Your task to perform on an android device: toggle wifi Image 0: 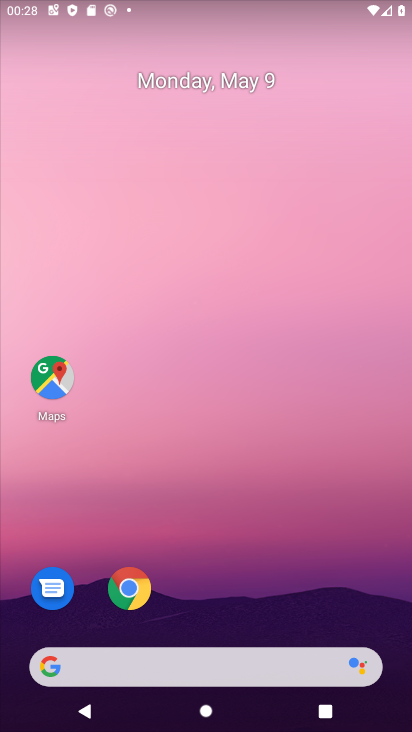
Step 0: drag from (233, 574) to (128, 27)
Your task to perform on an android device: toggle wifi Image 1: 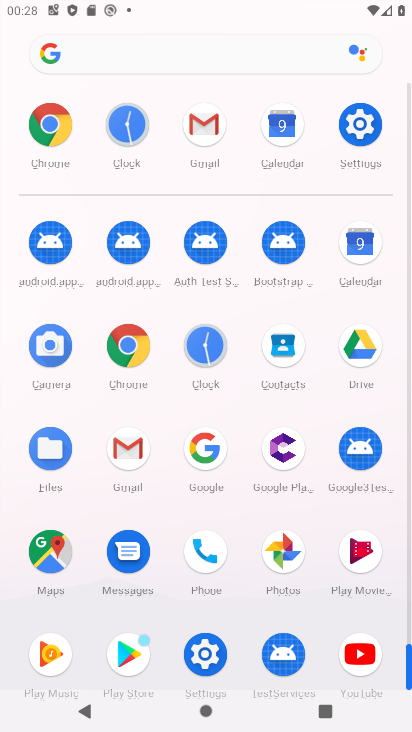
Step 1: click (358, 131)
Your task to perform on an android device: toggle wifi Image 2: 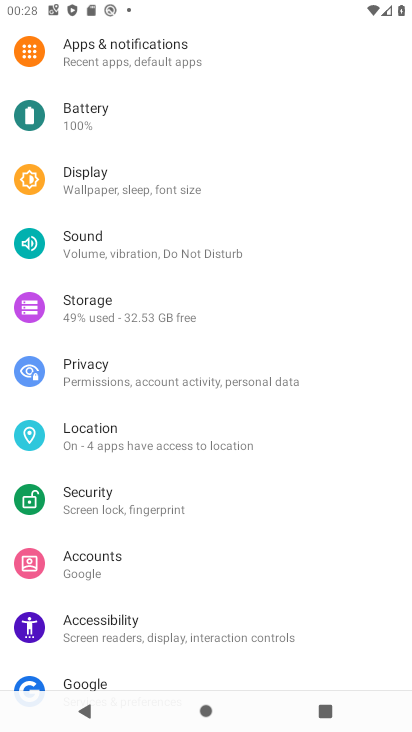
Step 2: drag from (196, 197) to (200, 700)
Your task to perform on an android device: toggle wifi Image 3: 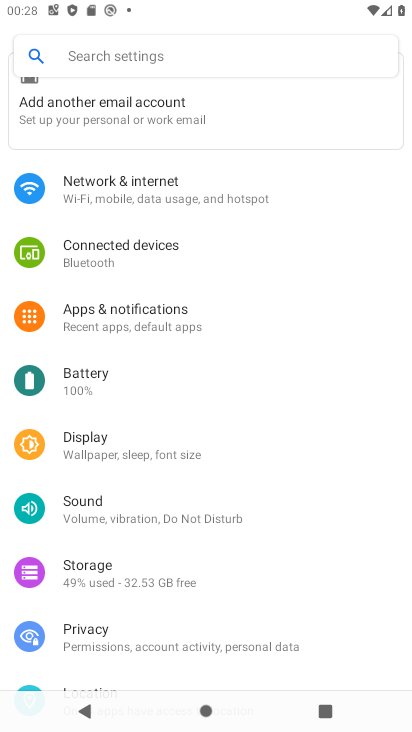
Step 3: click (126, 189)
Your task to perform on an android device: toggle wifi Image 4: 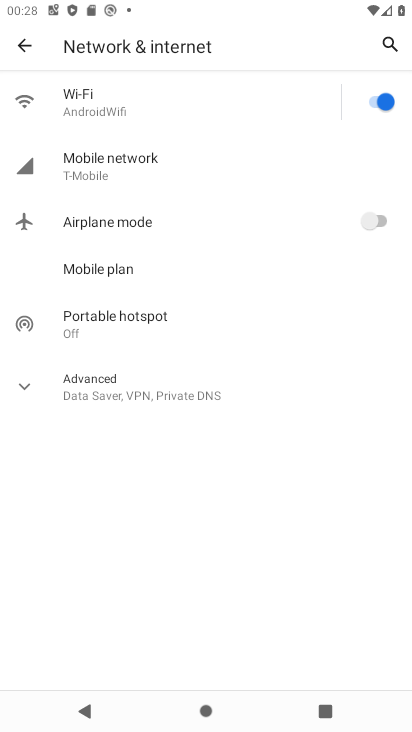
Step 4: click (385, 99)
Your task to perform on an android device: toggle wifi Image 5: 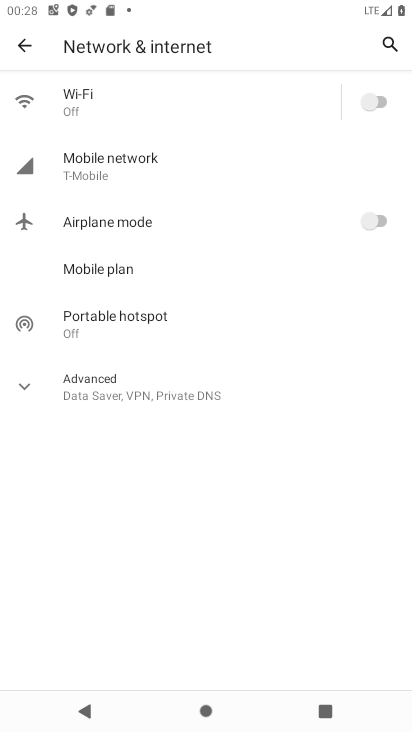
Step 5: task complete